Your task to perform on an android device: turn off smart reply in the gmail app Image 0: 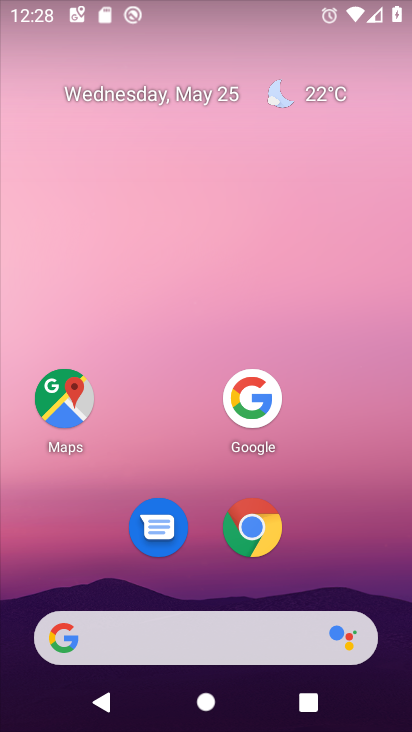
Step 0: press home button
Your task to perform on an android device: turn off smart reply in the gmail app Image 1: 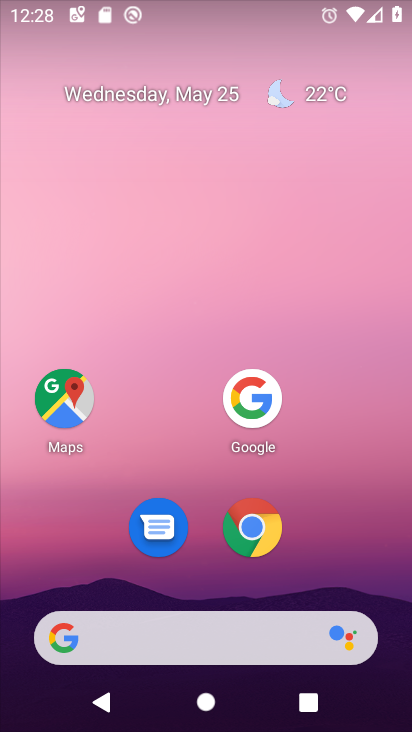
Step 1: drag from (190, 635) to (332, 140)
Your task to perform on an android device: turn off smart reply in the gmail app Image 2: 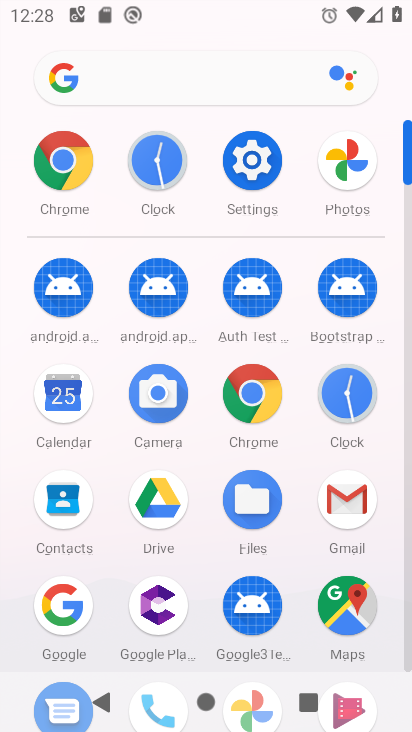
Step 2: click (352, 500)
Your task to perform on an android device: turn off smart reply in the gmail app Image 3: 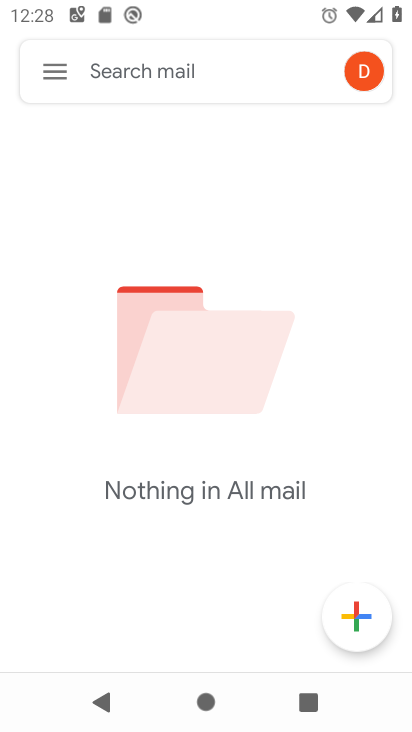
Step 3: click (58, 69)
Your task to perform on an android device: turn off smart reply in the gmail app Image 4: 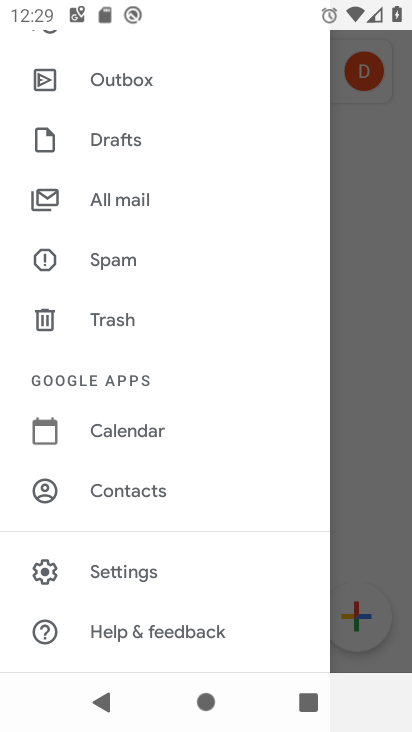
Step 4: click (130, 563)
Your task to perform on an android device: turn off smart reply in the gmail app Image 5: 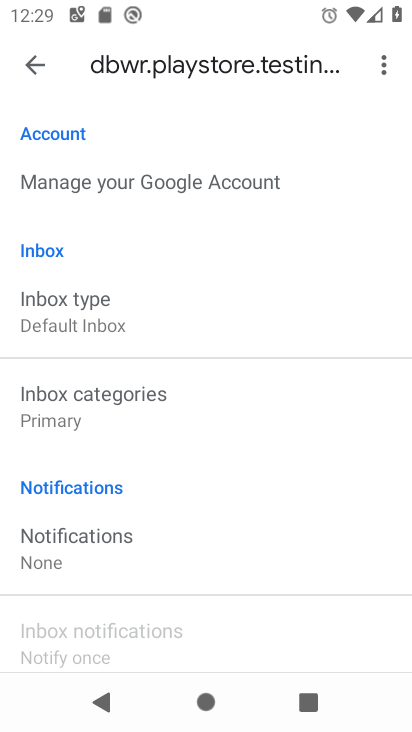
Step 5: drag from (220, 591) to (319, 293)
Your task to perform on an android device: turn off smart reply in the gmail app Image 6: 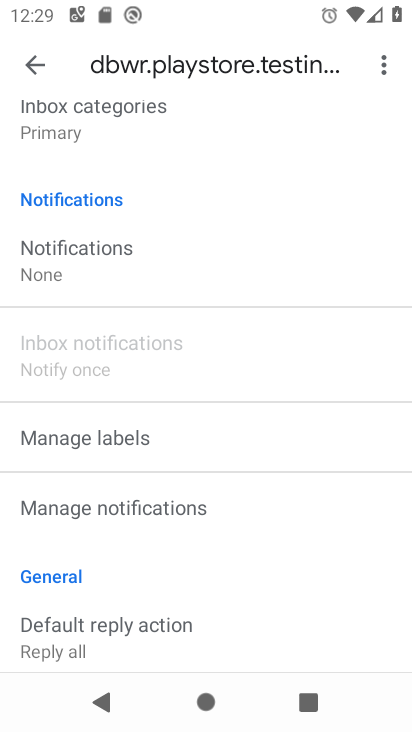
Step 6: drag from (204, 644) to (313, 218)
Your task to perform on an android device: turn off smart reply in the gmail app Image 7: 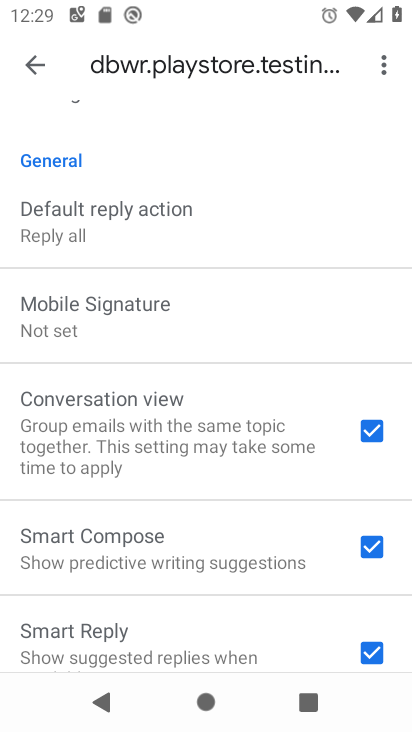
Step 7: drag from (223, 477) to (326, 221)
Your task to perform on an android device: turn off smart reply in the gmail app Image 8: 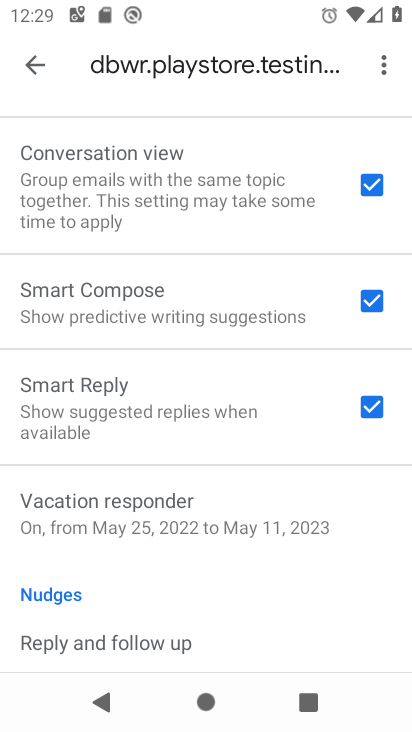
Step 8: click (375, 409)
Your task to perform on an android device: turn off smart reply in the gmail app Image 9: 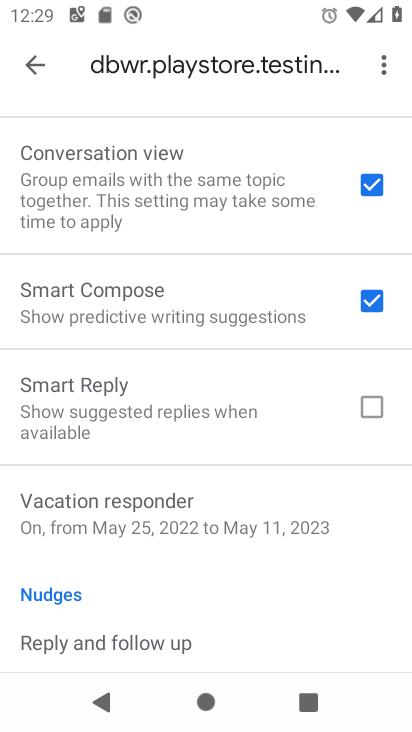
Step 9: task complete